Your task to perform on an android device: install app "Walmart Shopping & Grocery" Image 0: 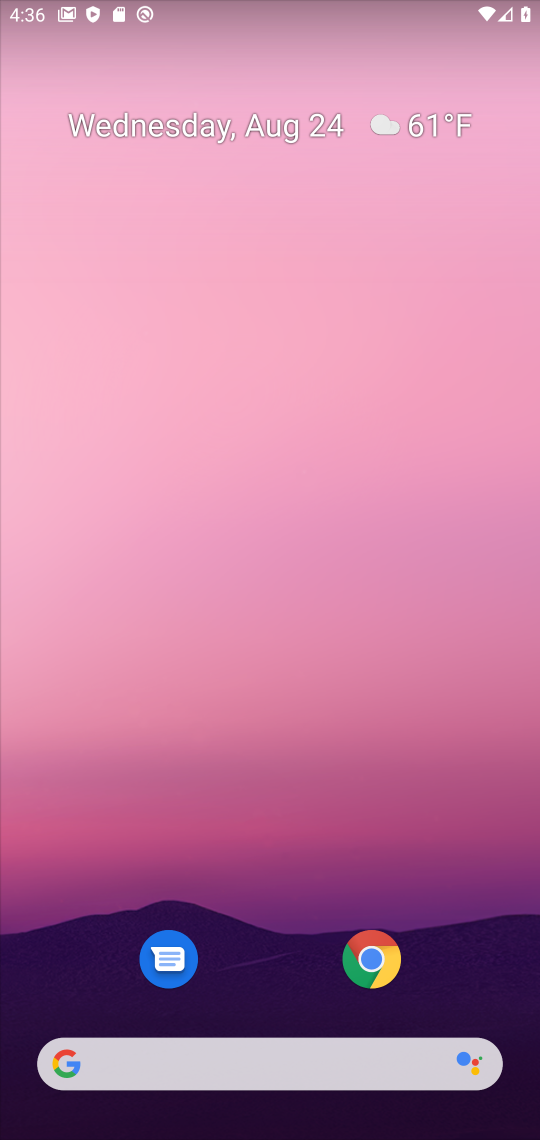
Step 0: drag from (260, 931) to (240, 391)
Your task to perform on an android device: install app "Walmart Shopping & Grocery" Image 1: 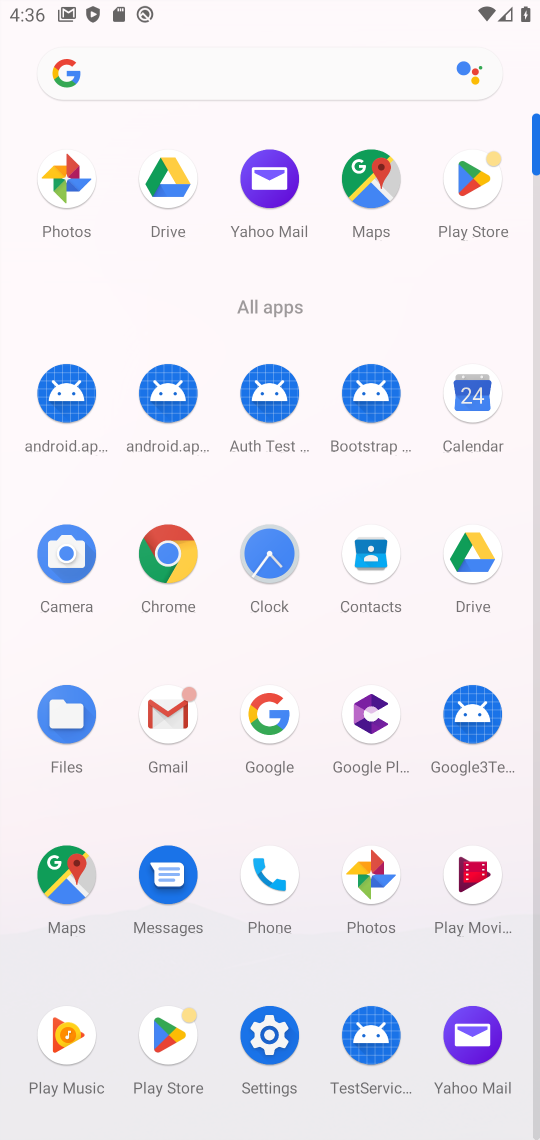
Step 1: click (185, 1035)
Your task to perform on an android device: install app "Walmart Shopping & Grocery" Image 2: 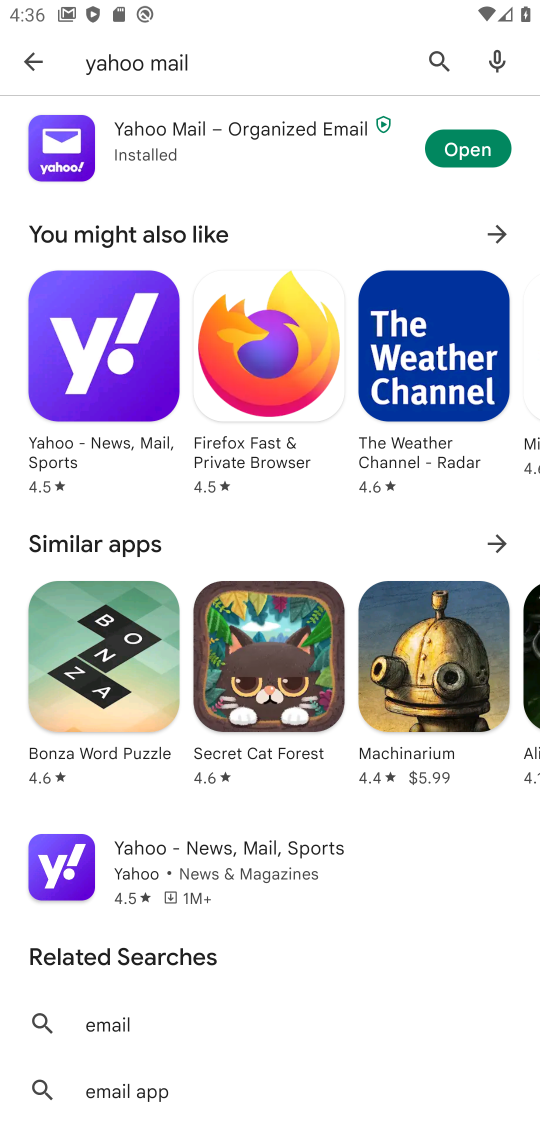
Step 2: click (434, 60)
Your task to perform on an android device: install app "Walmart Shopping & Grocery" Image 3: 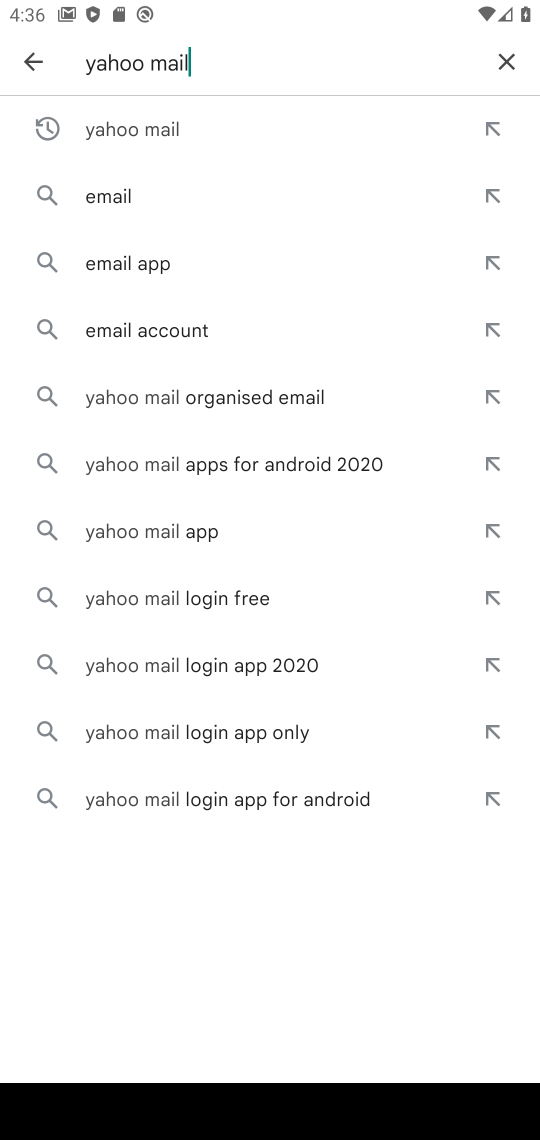
Step 3: click (515, 61)
Your task to perform on an android device: install app "Walmart Shopping & Grocery" Image 4: 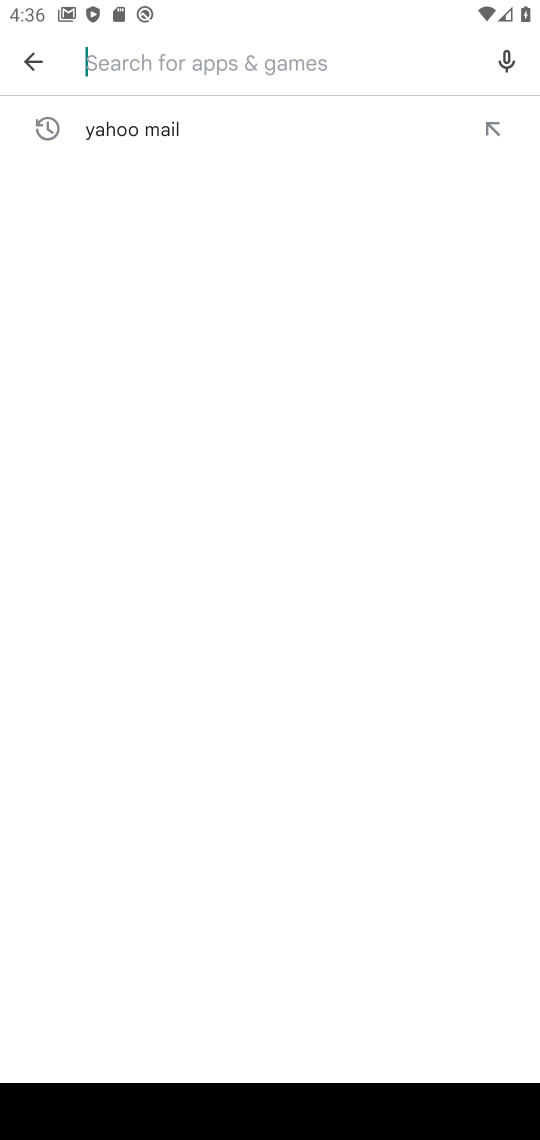
Step 4: type "Walmart Shopping & Grocery"
Your task to perform on an android device: install app "Walmart Shopping & Grocery" Image 5: 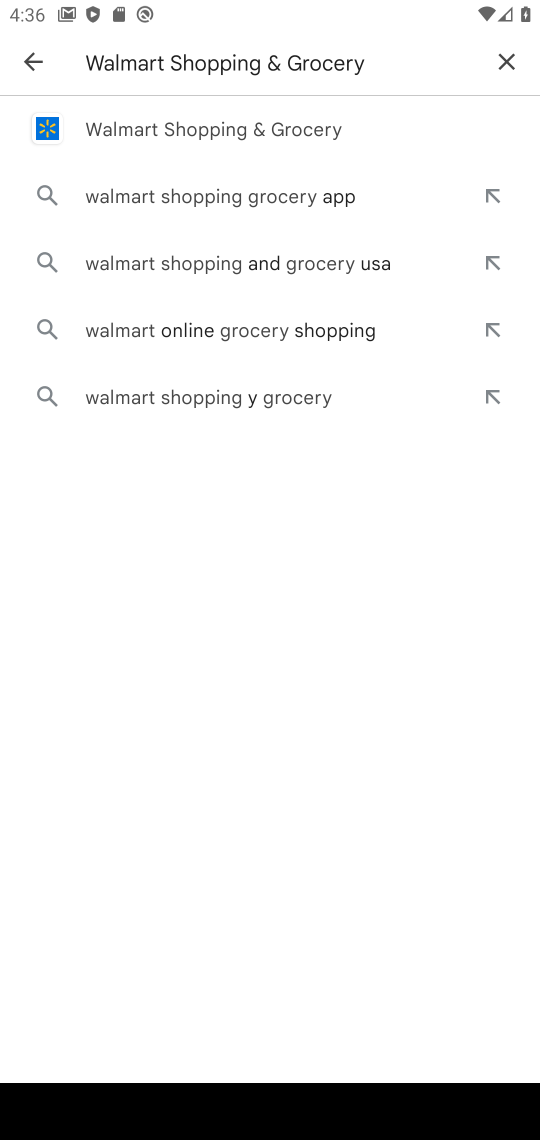
Step 5: click (133, 136)
Your task to perform on an android device: install app "Walmart Shopping & Grocery" Image 6: 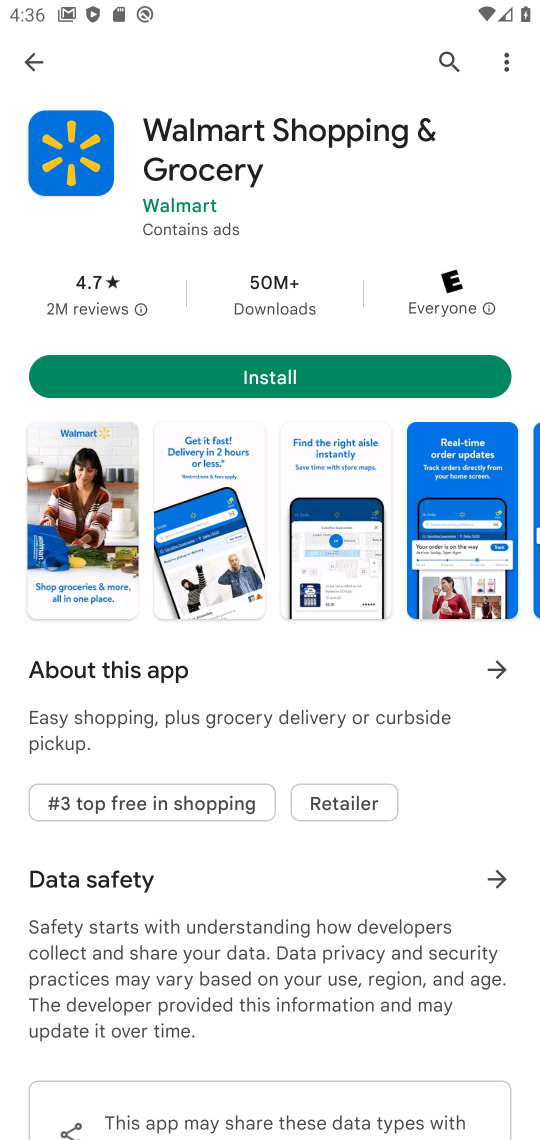
Step 6: click (264, 381)
Your task to perform on an android device: install app "Walmart Shopping & Grocery" Image 7: 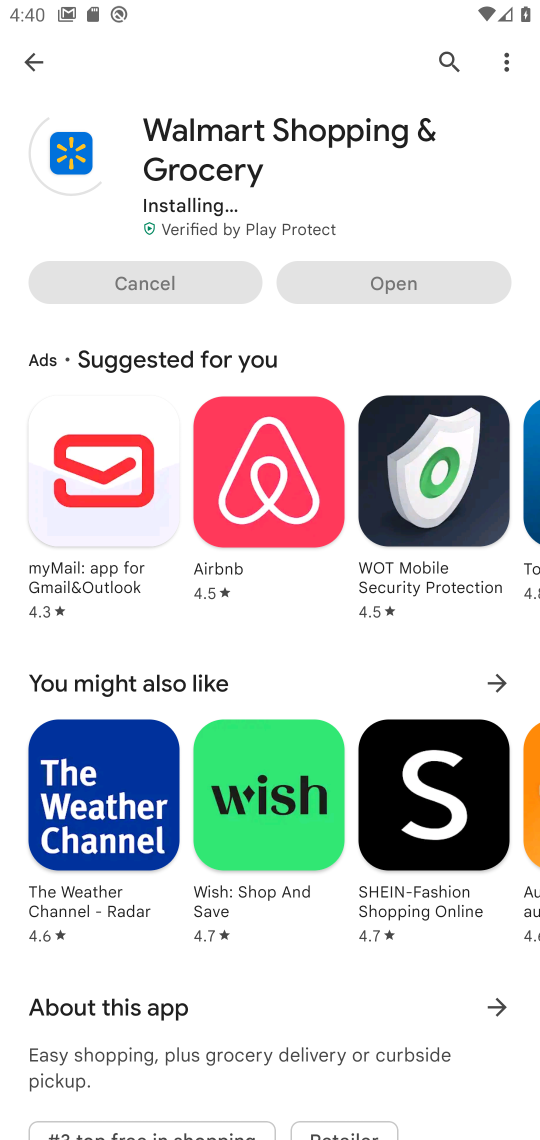
Step 7: task complete